Your task to perform on an android device: Is it going to rain tomorrow? Image 0: 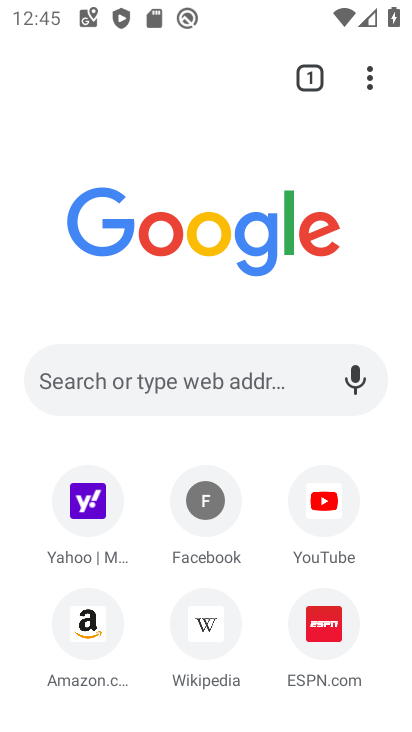
Step 0: press back button
Your task to perform on an android device: Is it going to rain tomorrow? Image 1: 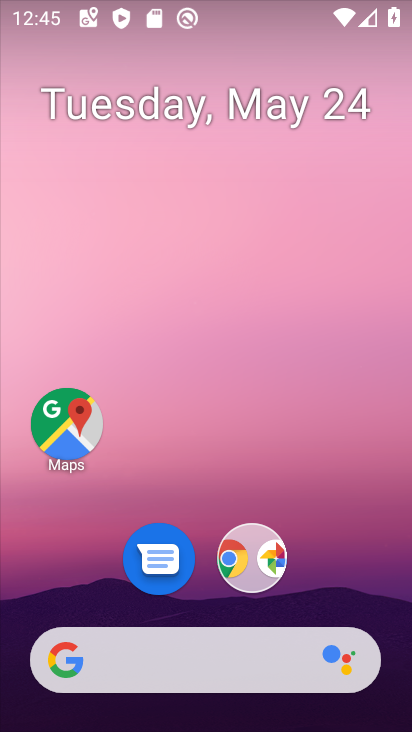
Step 1: drag from (234, 599) to (191, 136)
Your task to perform on an android device: Is it going to rain tomorrow? Image 2: 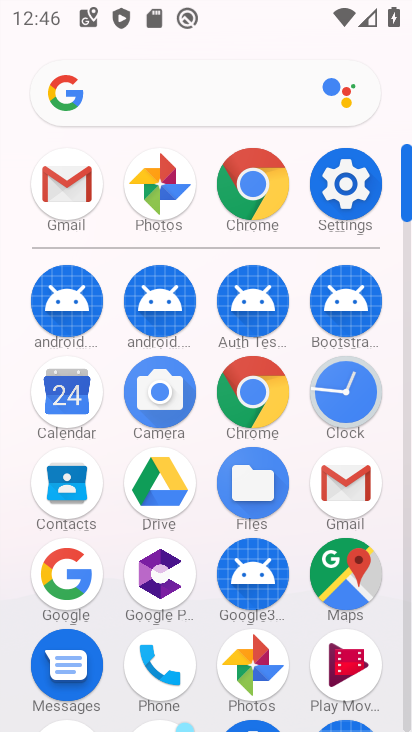
Step 2: press back button
Your task to perform on an android device: Is it going to rain tomorrow? Image 3: 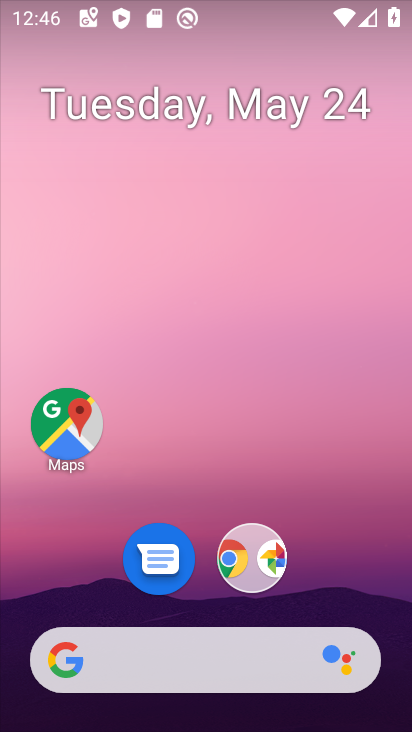
Step 3: click (183, 320)
Your task to perform on an android device: Is it going to rain tomorrow? Image 4: 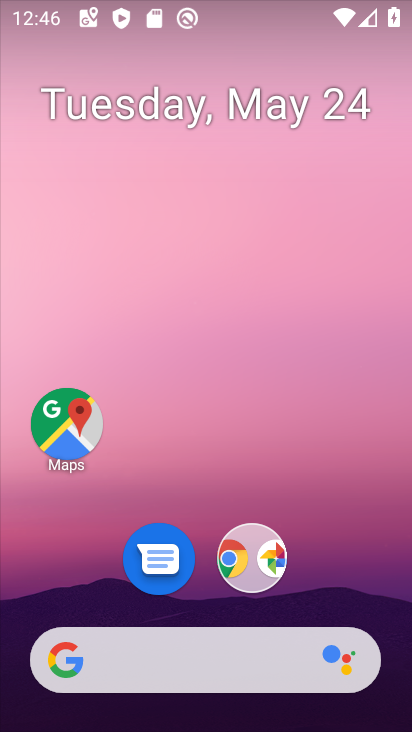
Step 4: drag from (21, 187) to (410, 385)
Your task to perform on an android device: Is it going to rain tomorrow? Image 5: 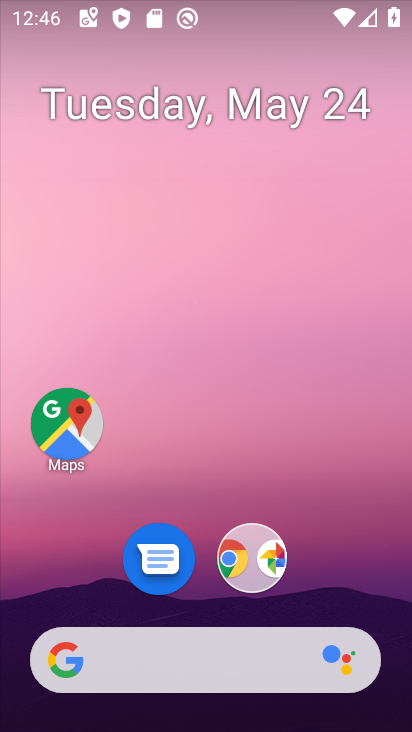
Step 5: drag from (96, 301) to (175, 479)
Your task to perform on an android device: Is it going to rain tomorrow? Image 6: 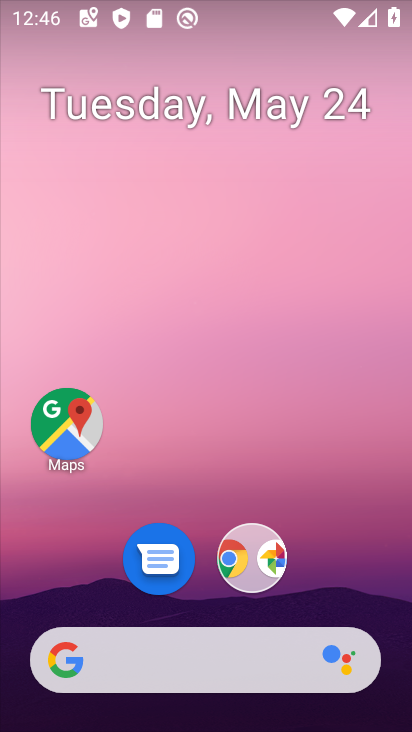
Step 6: drag from (21, 215) to (118, 379)
Your task to perform on an android device: Is it going to rain tomorrow? Image 7: 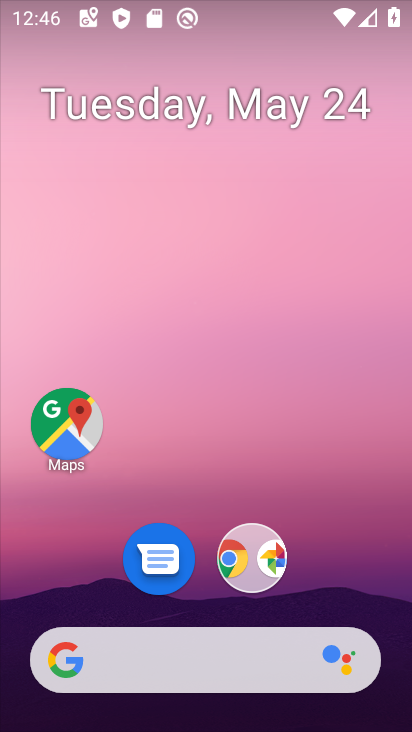
Step 7: drag from (182, 363) to (253, 499)
Your task to perform on an android device: Is it going to rain tomorrow? Image 8: 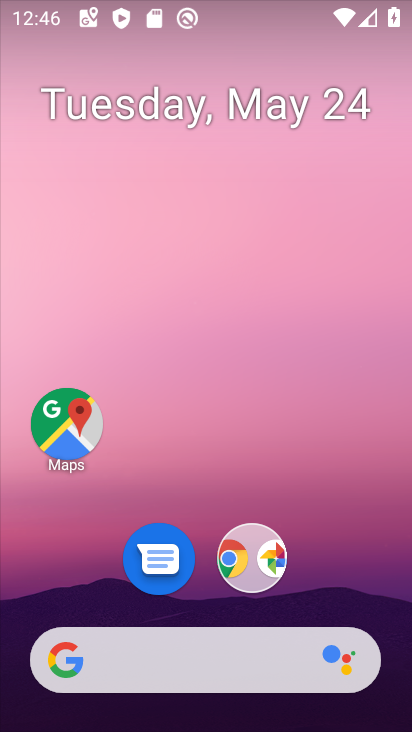
Step 8: drag from (0, 163) to (361, 496)
Your task to perform on an android device: Is it going to rain tomorrow? Image 9: 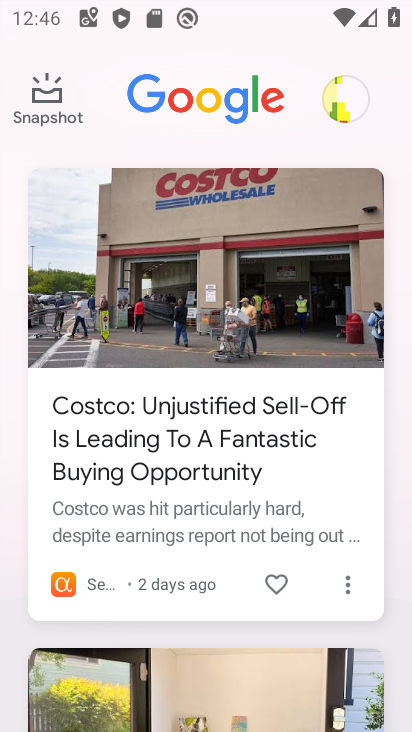
Step 9: drag from (175, 149) to (156, 669)
Your task to perform on an android device: Is it going to rain tomorrow? Image 10: 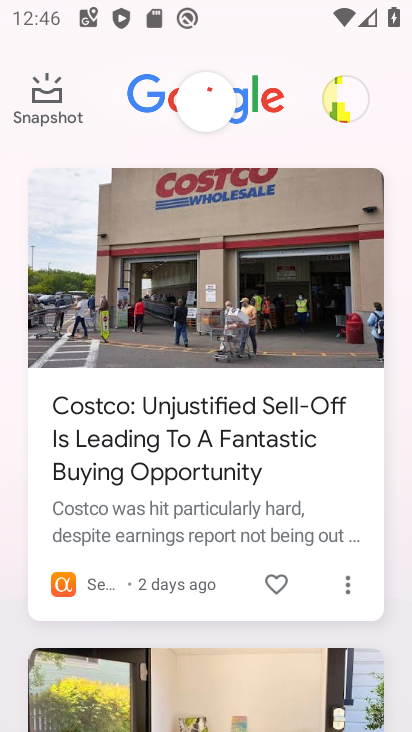
Step 10: click (144, 621)
Your task to perform on an android device: Is it going to rain tomorrow? Image 11: 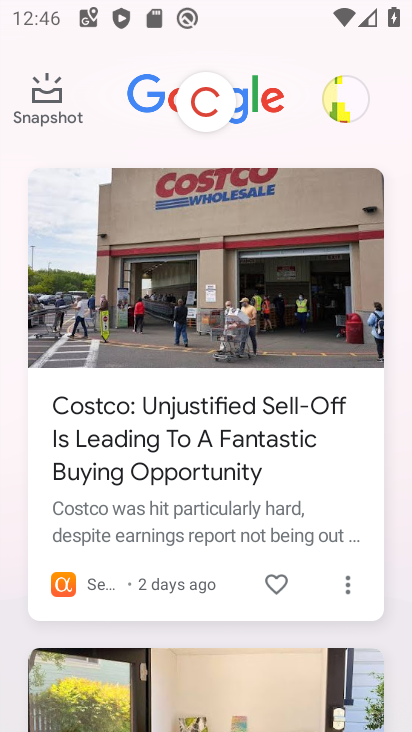
Step 11: drag from (186, 356) to (109, 717)
Your task to perform on an android device: Is it going to rain tomorrow? Image 12: 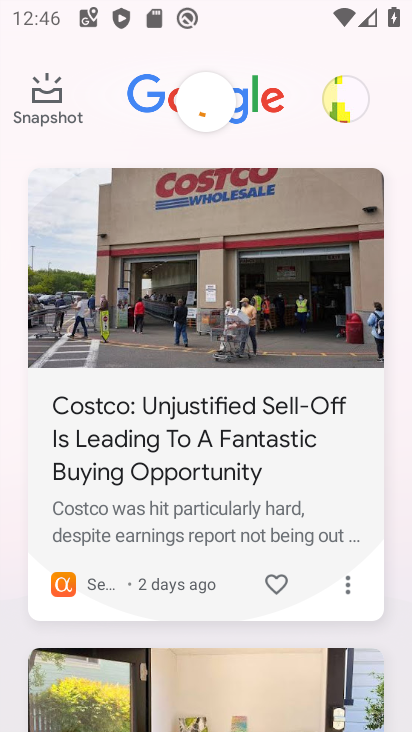
Step 12: drag from (147, 562) to (147, 707)
Your task to perform on an android device: Is it going to rain tomorrow? Image 13: 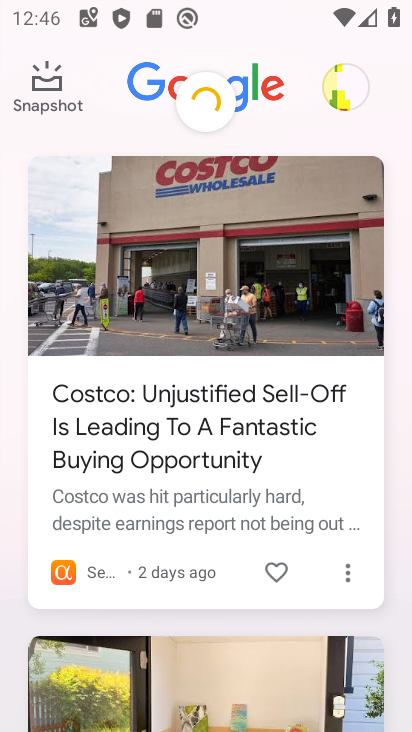
Step 13: drag from (172, 472) to (219, 660)
Your task to perform on an android device: Is it going to rain tomorrow? Image 14: 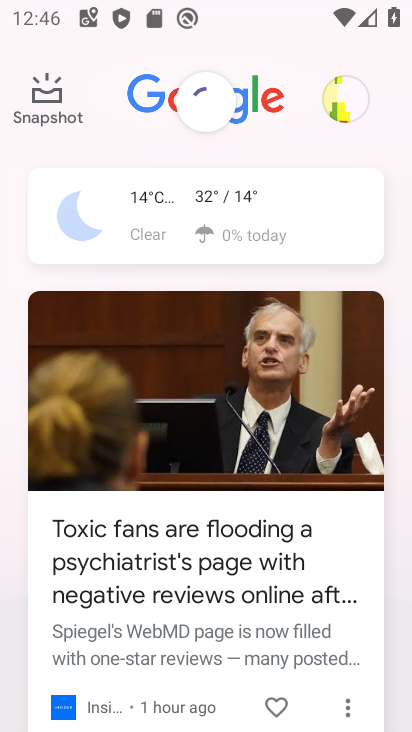
Step 14: click (198, 217)
Your task to perform on an android device: Is it going to rain tomorrow? Image 15: 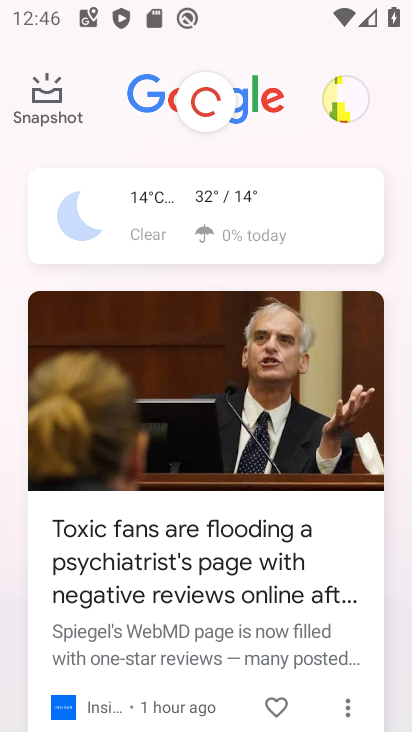
Step 15: click (198, 217)
Your task to perform on an android device: Is it going to rain tomorrow? Image 16: 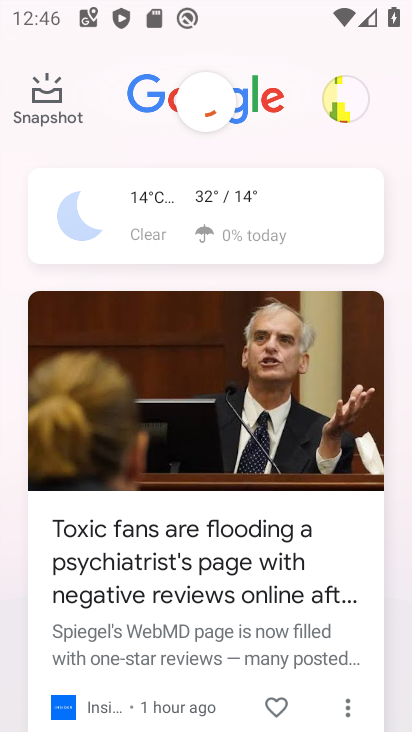
Step 16: click (199, 224)
Your task to perform on an android device: Is it going to rain tomorrow? Image 17: 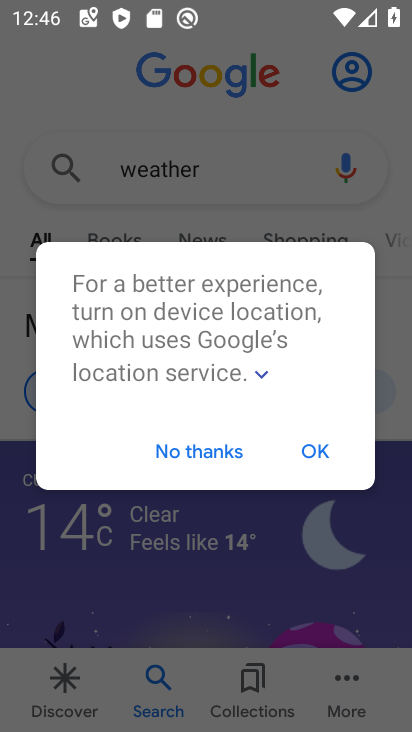
Step 17: click (308, 446)
Your task to perform on an android device: Is it going to rain tomorrow? Image 18: 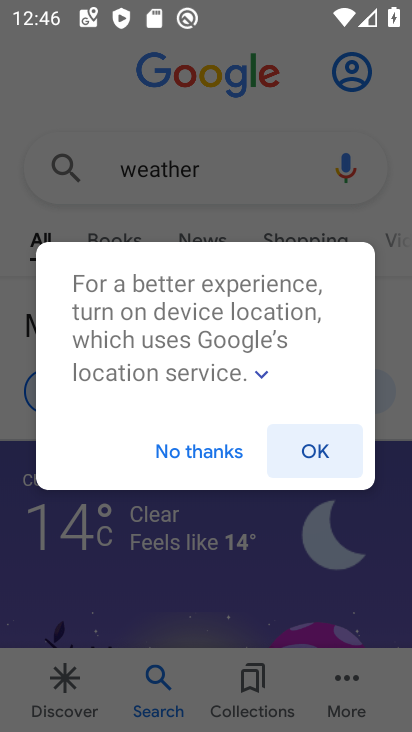
Step 18: click (307, 447)
Your task to perform on an android device: Is it going to rain tomorrow? Image 19: 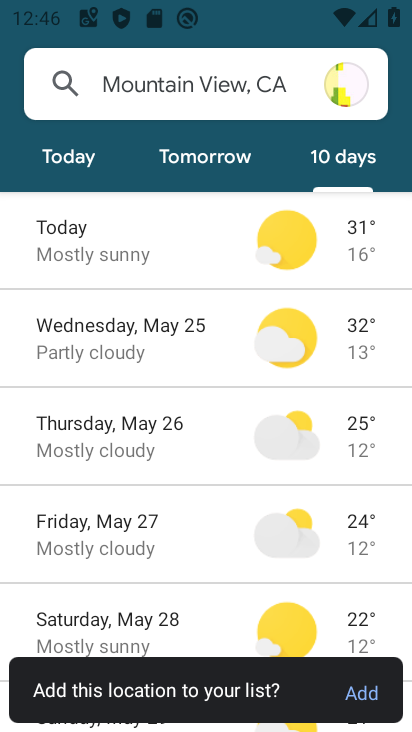
Step 19: task complete